Your task to perform on an android device: Show me the alarms in the clock app Image 0: 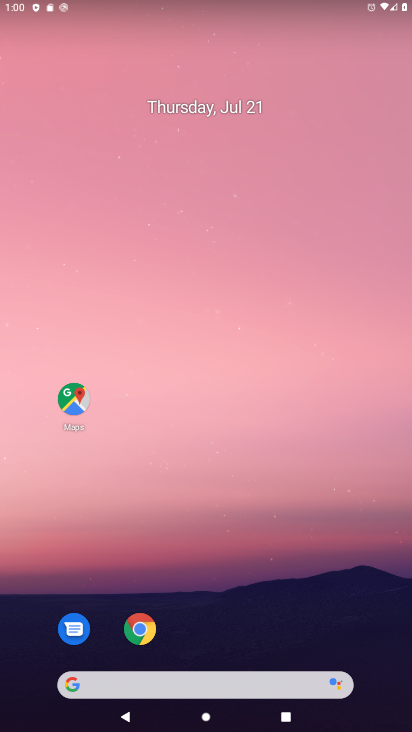
Step 0: drag from (84, 667) to (296, 130)
Your task to perform on an android device: Show me the alarms in the clock app Image 1: 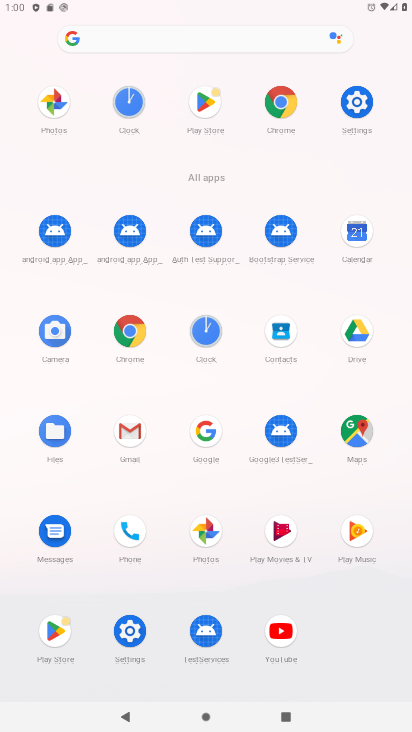
Step 1: click (204, 341)
Your task to perform on an android device: Show me the alarms in the clock app Image 2: 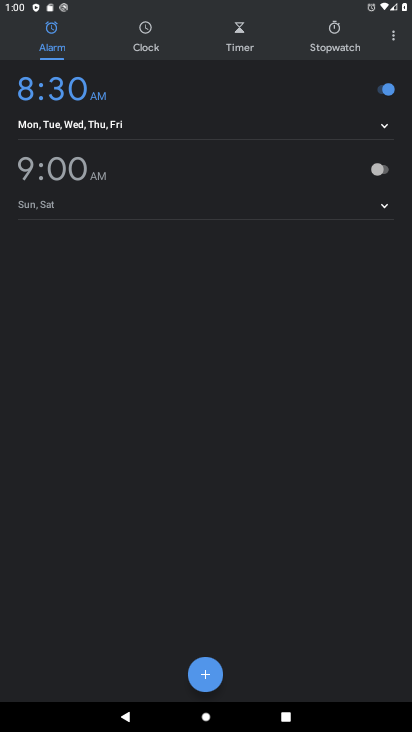
Step 2: task complete